Your task to perform on an android device: search for starred emails in the gmail app Image 0: 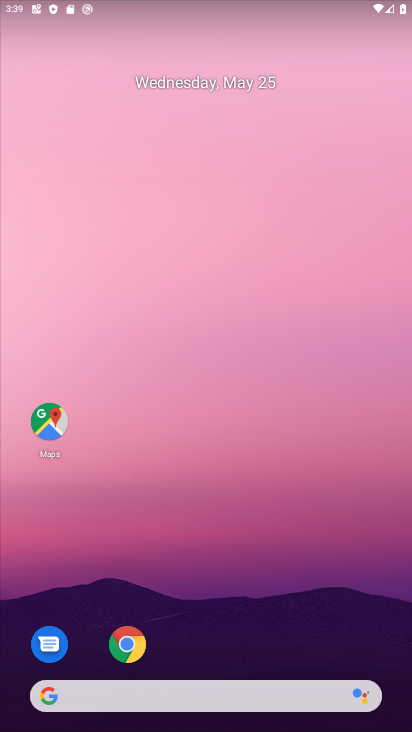
Step 0: drag from (267, 665) to (205, 0)
Your task to perform on an android device: search for starred emails in the gmail app Image 1: 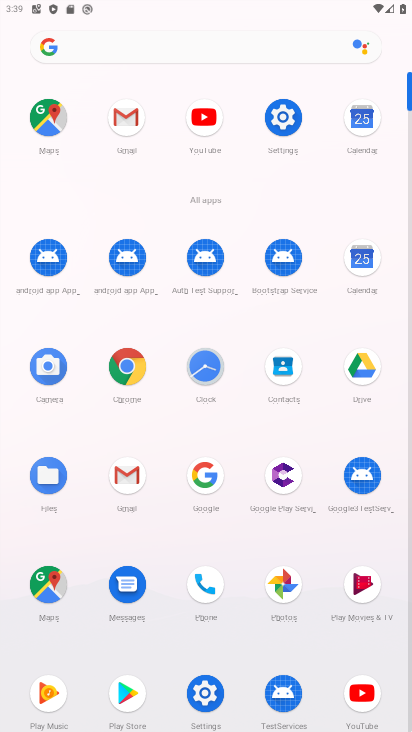
Step 1: click (126, 119)
Your task to perform on an android device: search for starred emails in the gmail app Image 2: 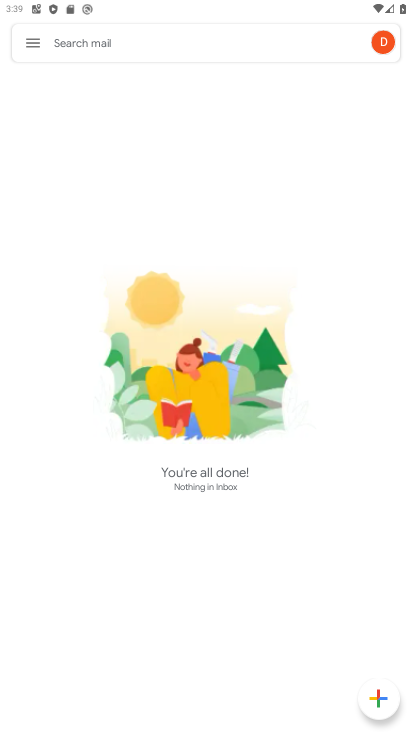
Step 2: click (27, 44)
Your task to perform on an android device: search for starred emails in the gmail app Image 3: 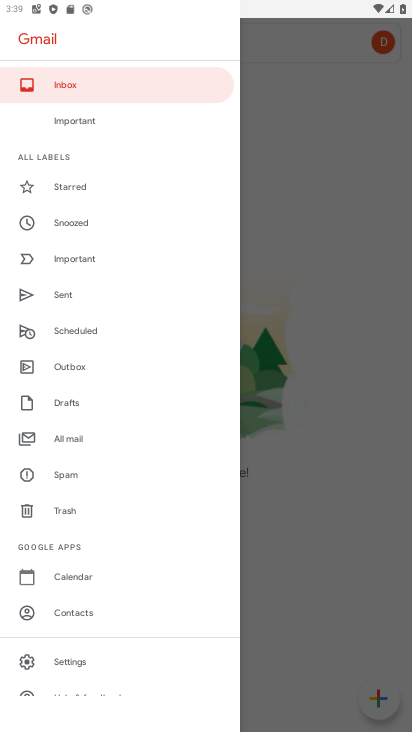
Step 3: click (57, 192)
Your task to perform on an android device: search for starred emails in the gmail app Image 4: 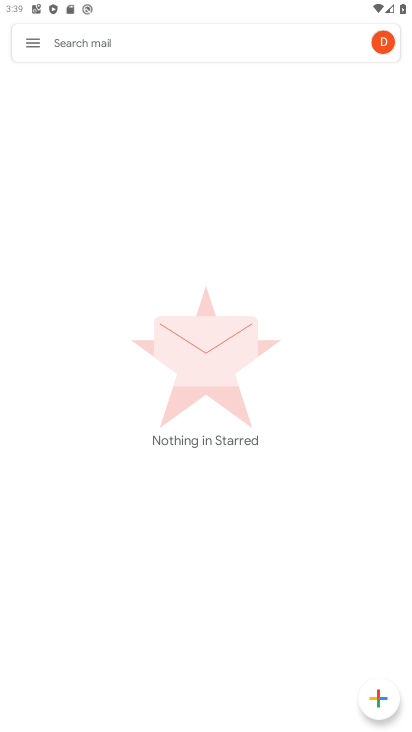
Step 4: task complete